Your task to perform on an android device: open sync settings in chrome Image 0: 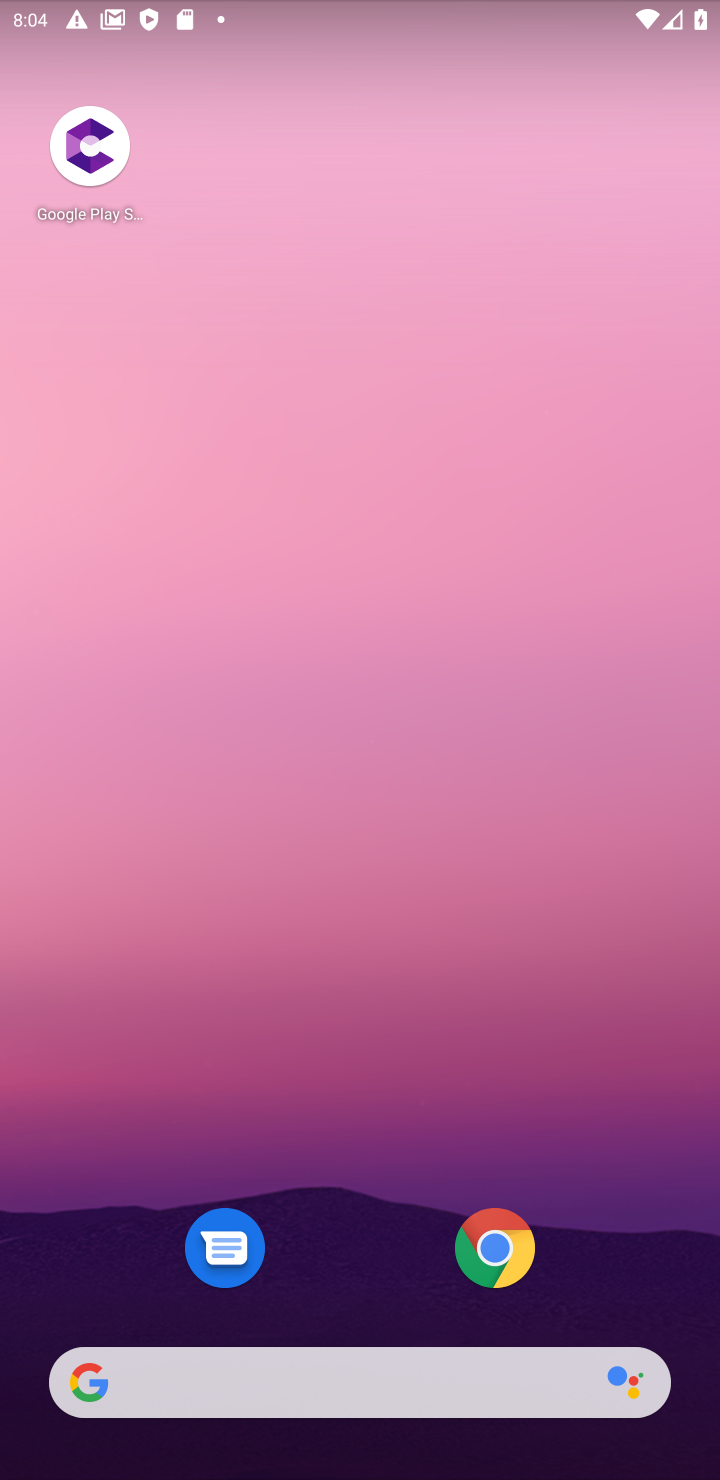
Step 0: drag from (449, 757) to (583, 168)
Your task to perform on an android device: open sync settings in chrome Image 1: 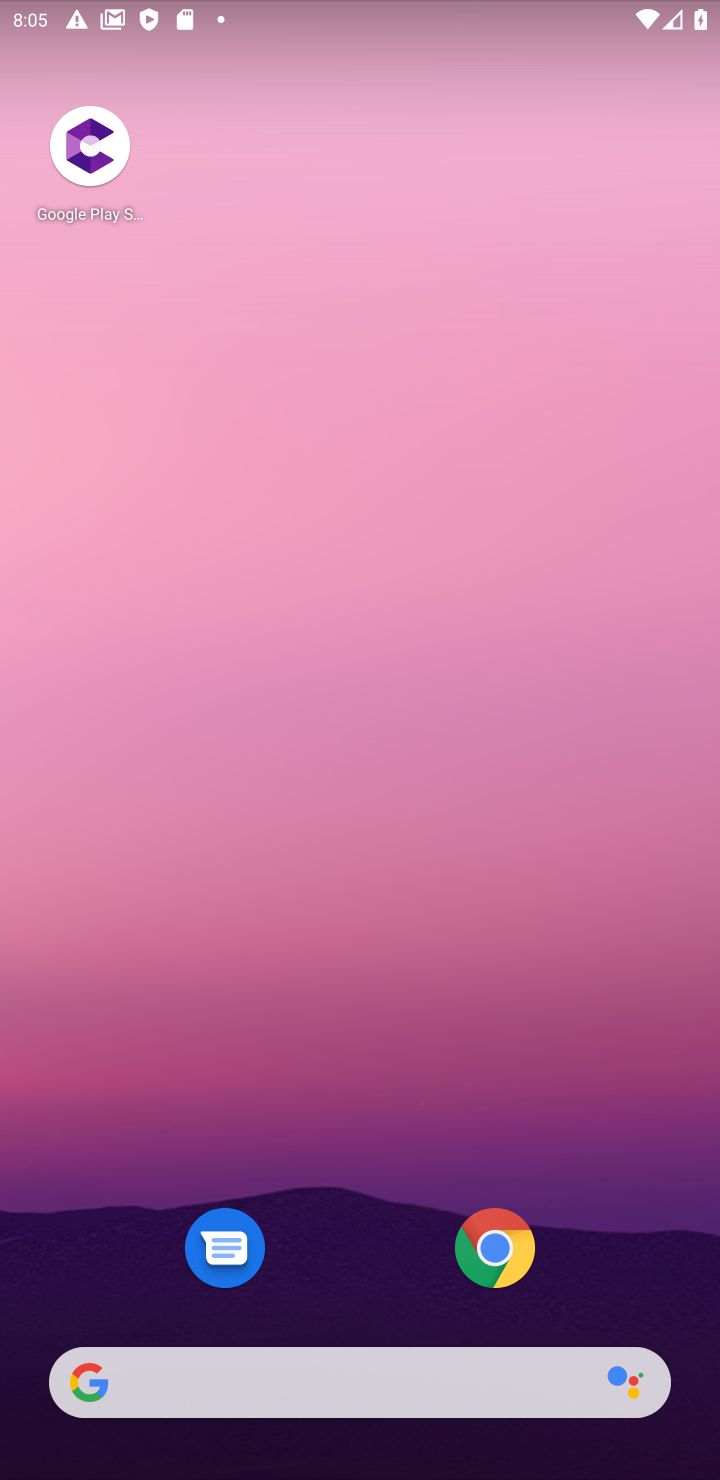
Step 1: click (502, 1252)
Your task to perform on an android device: open sync settings in chrome Image 2: 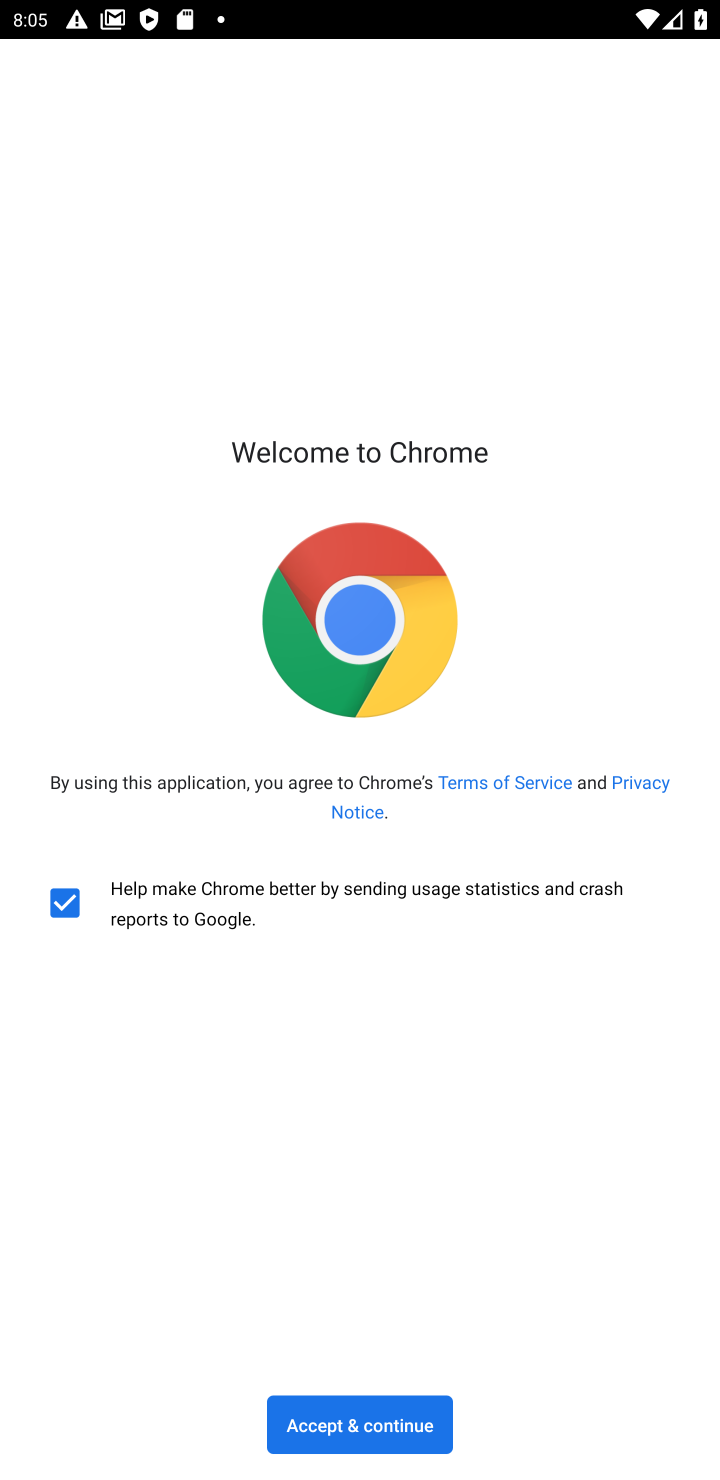
Step 2: click (339, 1426)
Your task to perform on an android device: open sync settings in chrome Image 3: 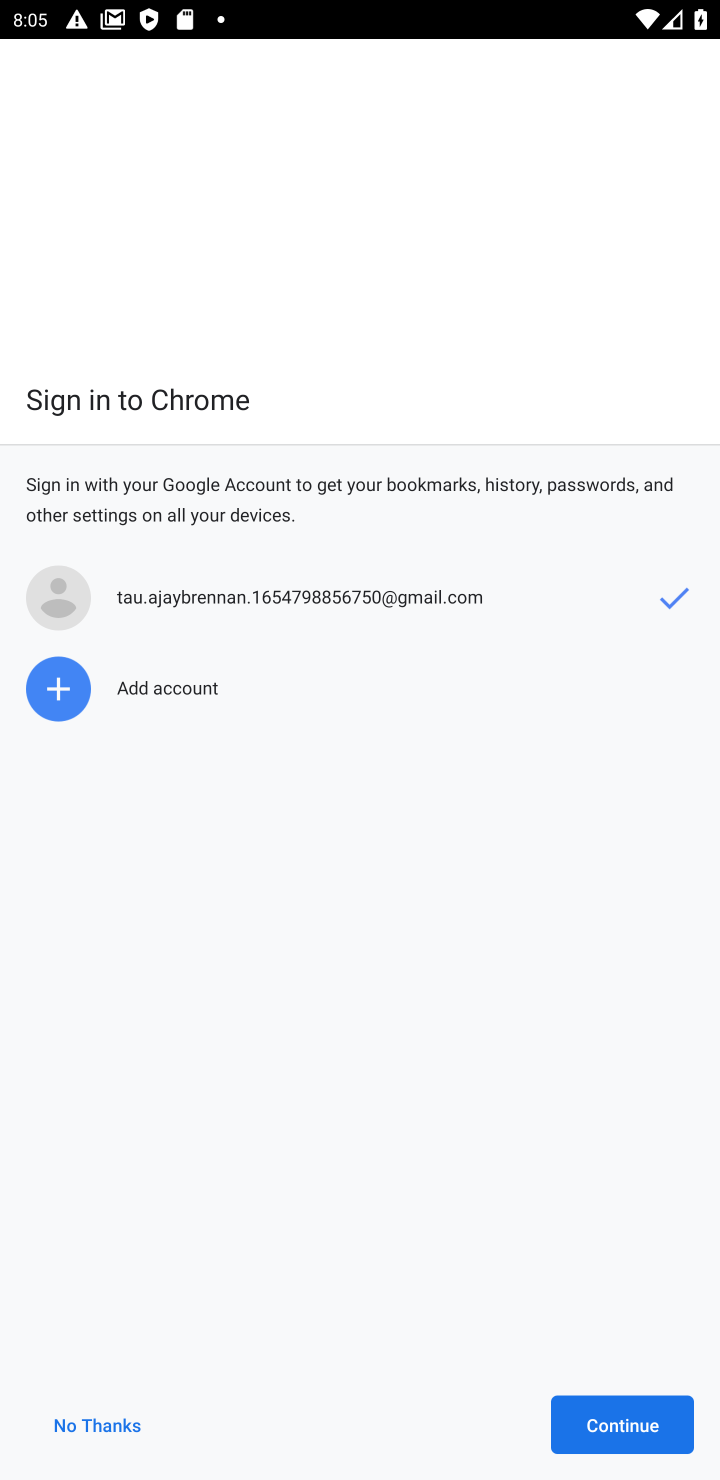
Step 3: click (619, 1421)
Your task to perform on an android device: open sync settings in chrome Image 4: 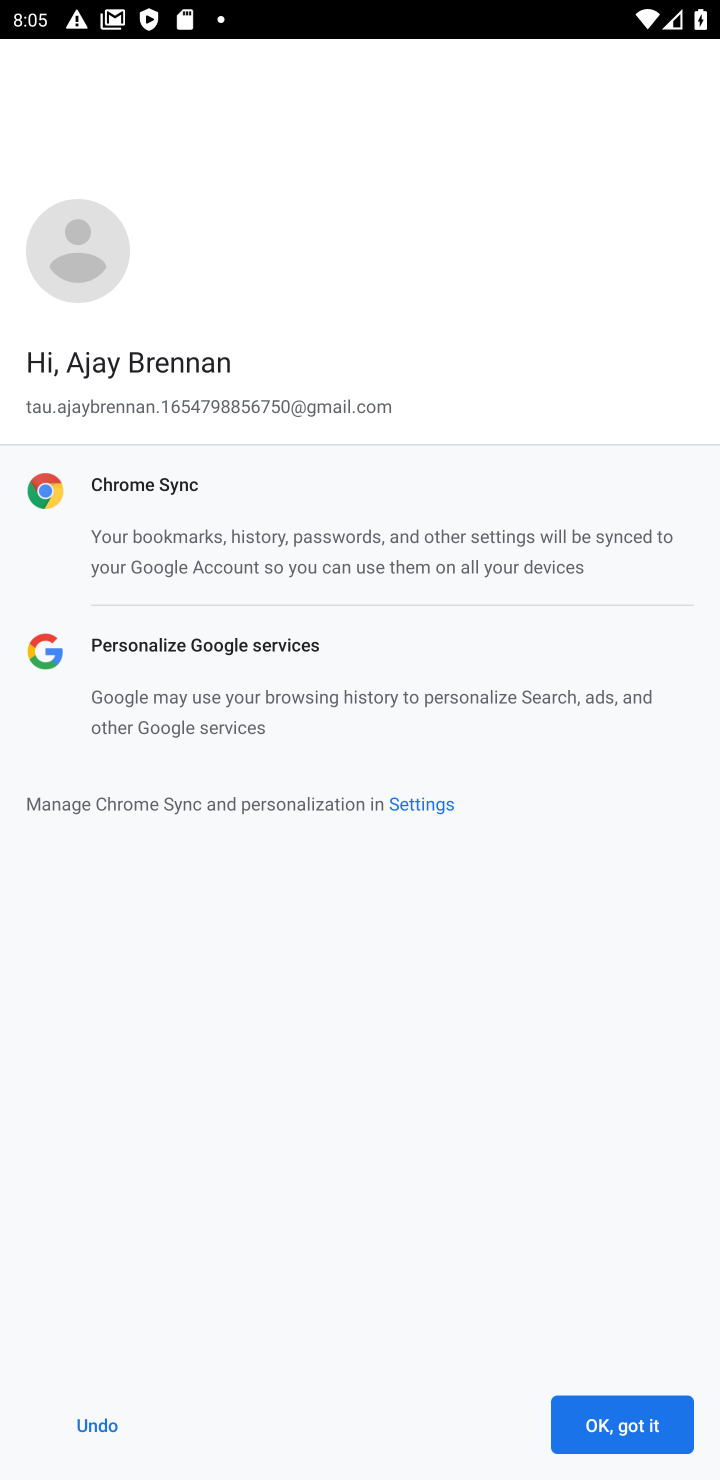
Step 4: click (619, 1421)
Your task to perform on an android device: open sync settings in chrome Image 5: 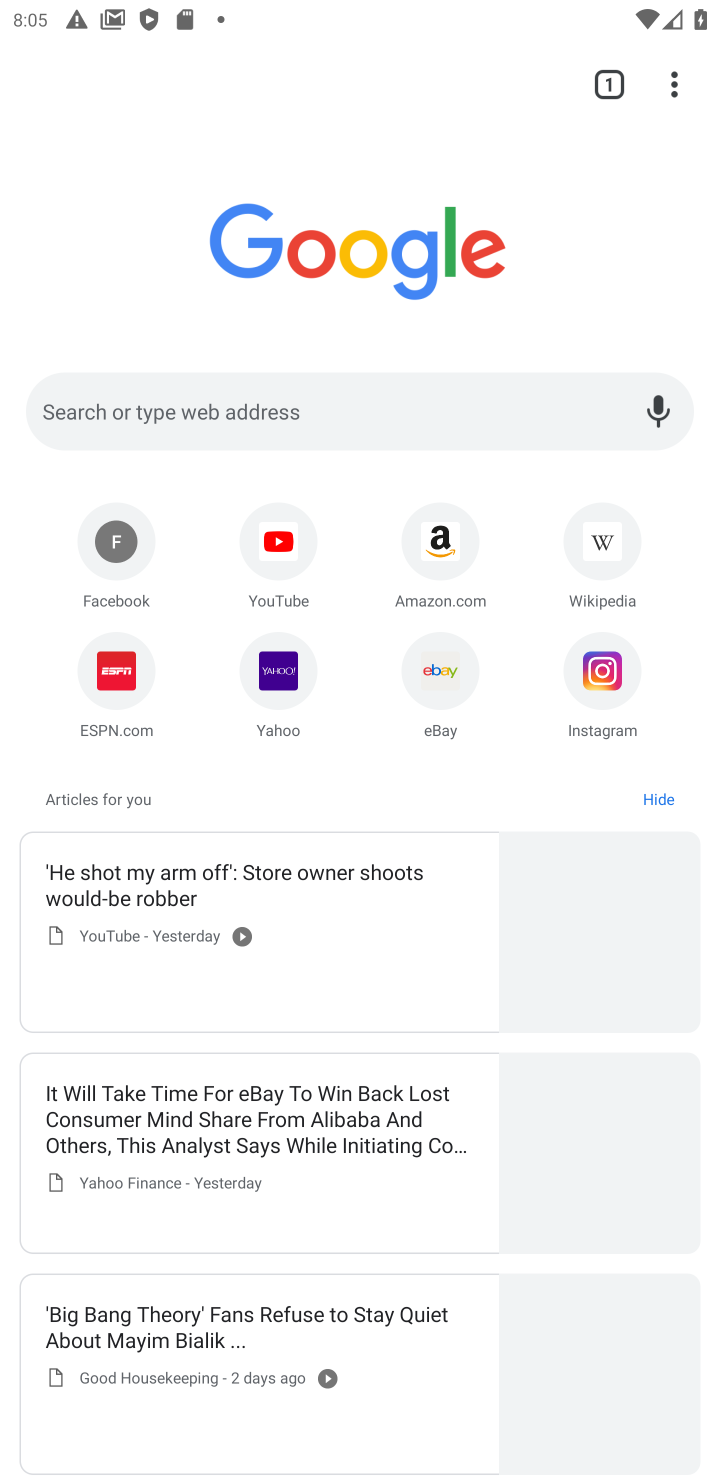
Step 5: click (671, 78)
Your task to perform on an android device: open sync settings in chrome Image 6: 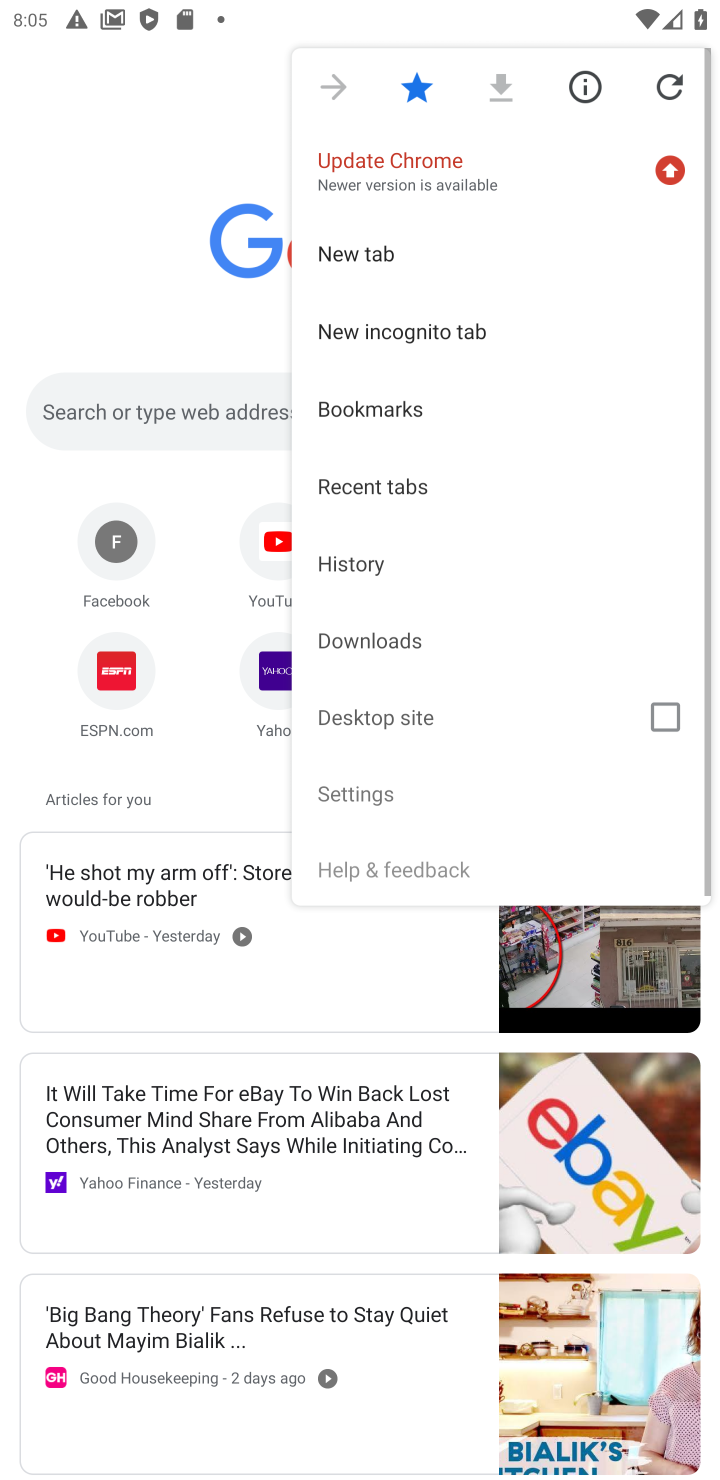
Step 6: click (671, 78)
Your task to perform on an android device: open sync settings in chrome Image 7: 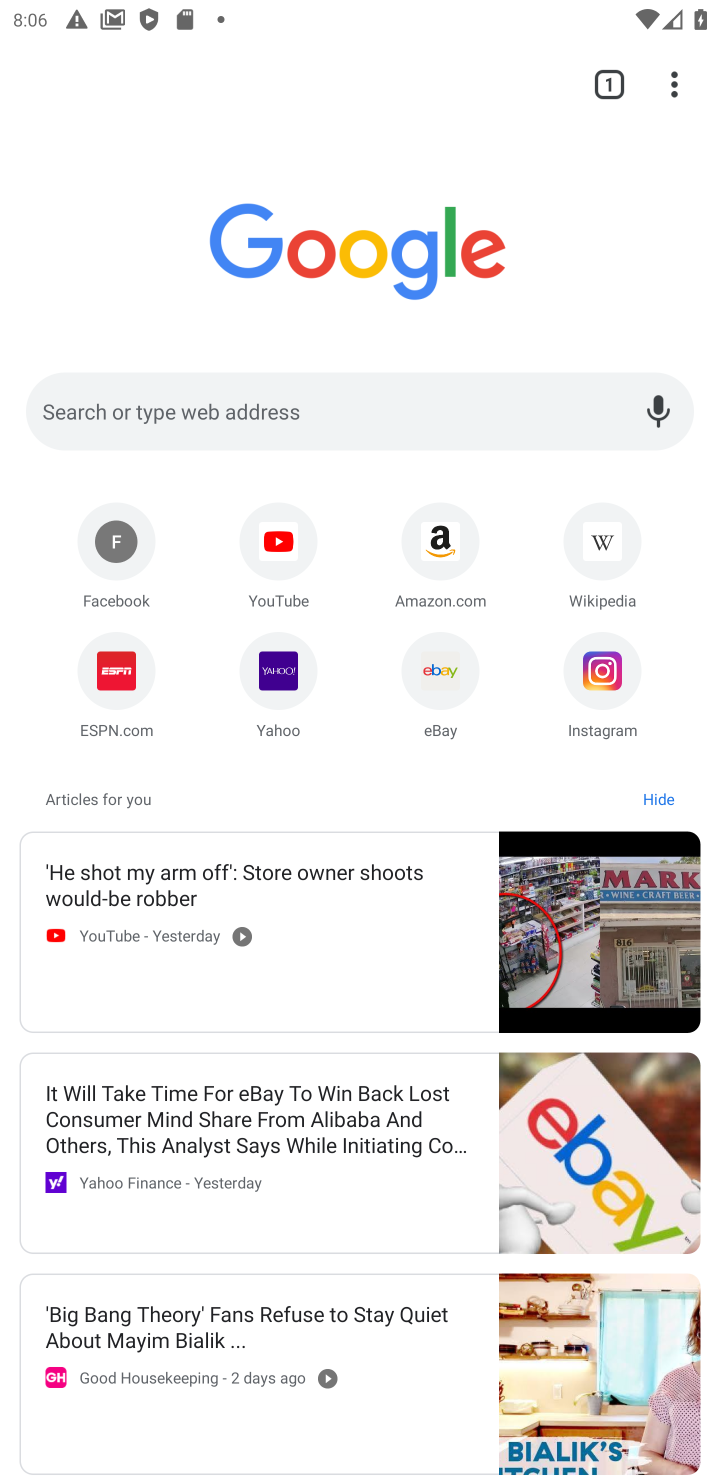
Step 7: drag from (673, 78) to (374, 798)
Your task to perform on an android device: open sync settings in chrome Image 8: 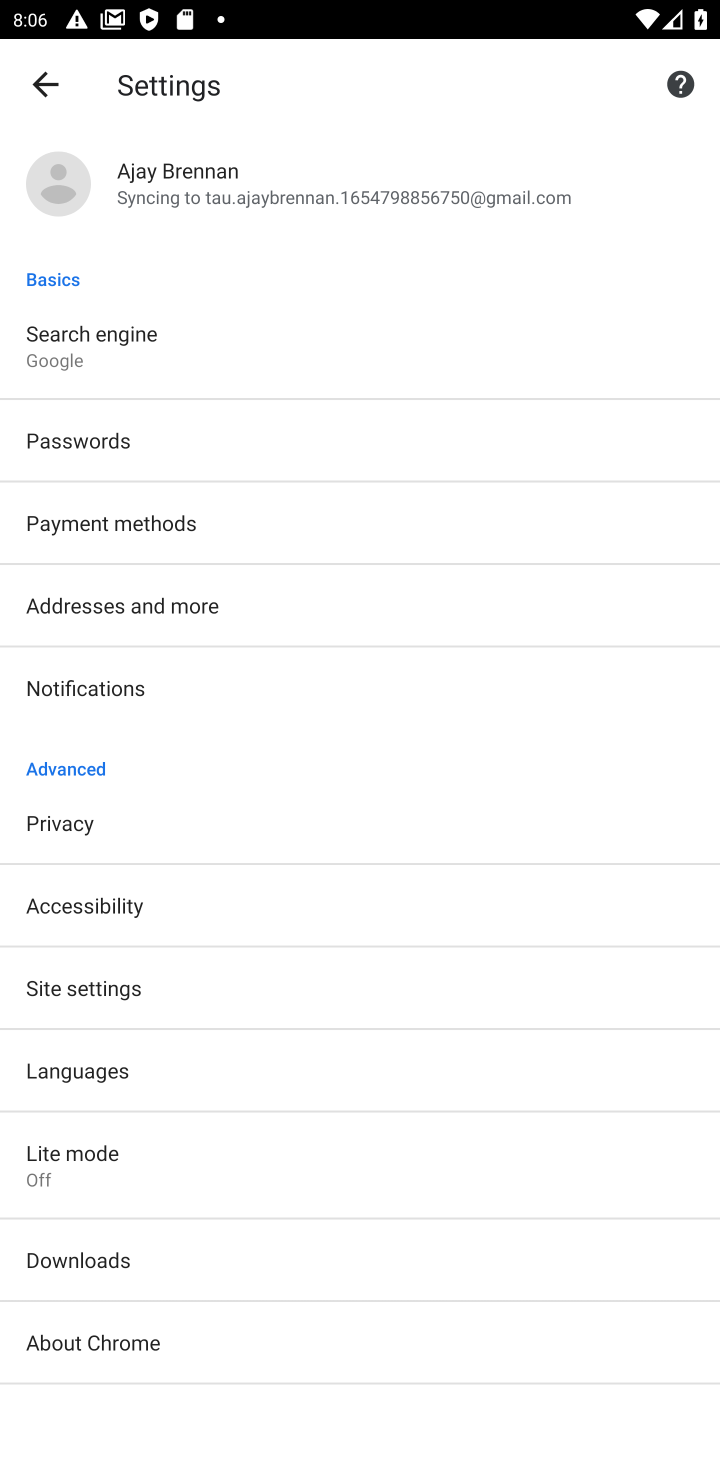
Step 8: click (69, 174)
Your task to perform on an android device: open sync settings in chrome Image 9: 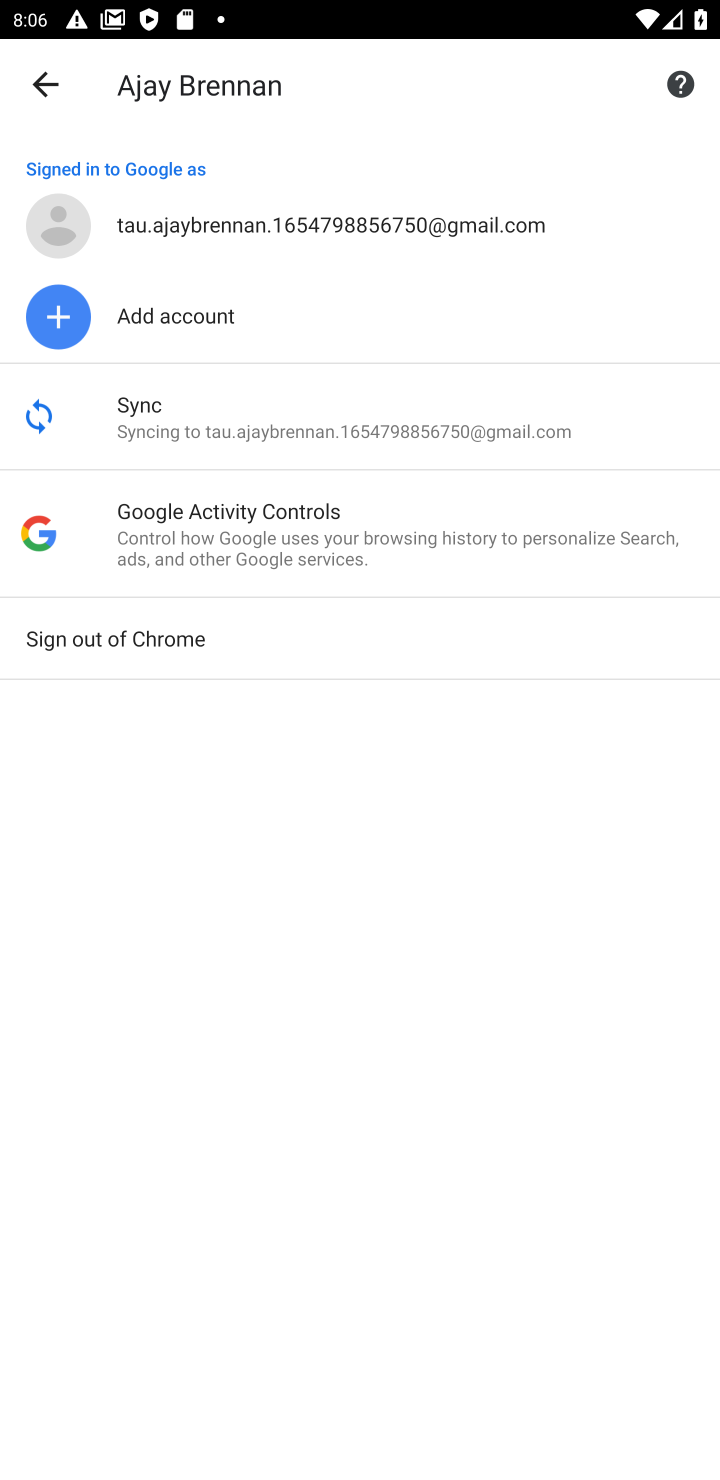
Step 9: click (140, 401)
Your task to perform on an android device: open sync settings in chrome Image 10: 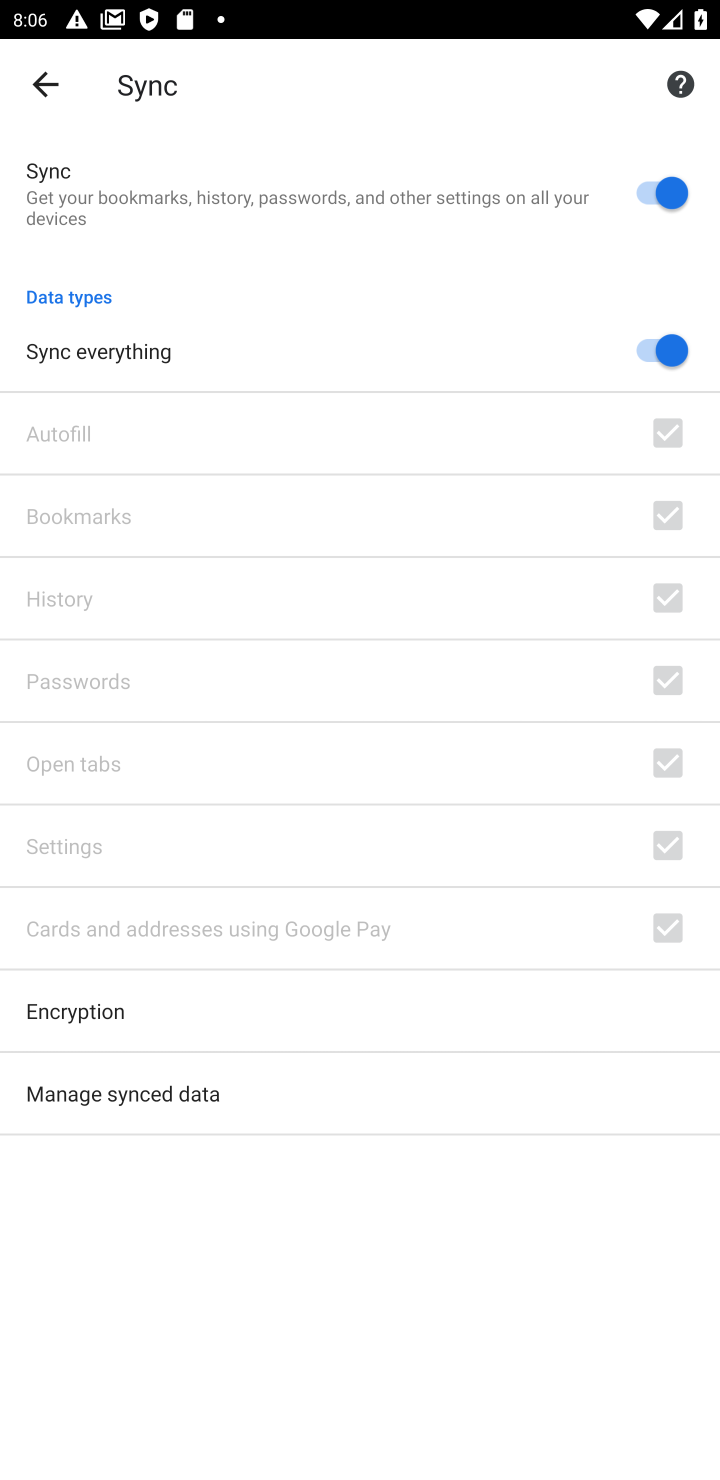
Step 10: task complete